Your task to perform on an android device: Set the phone to "Do not disturb". Image 0: 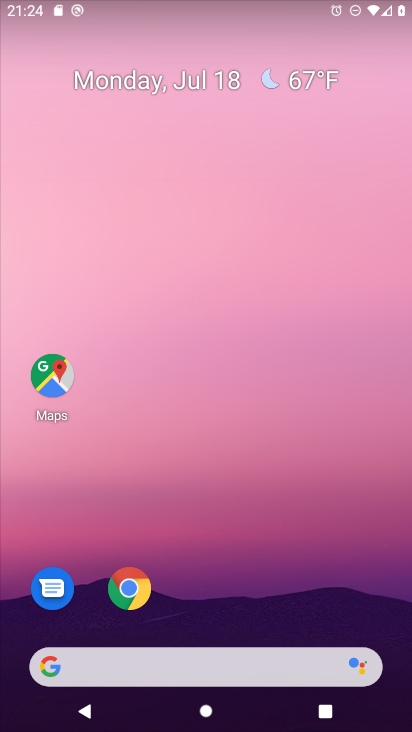
Step 0: drag from (383, 628) to (341, 74)
Your task to perform on an android device: Set the phone to "Do not disturb". Image 1: 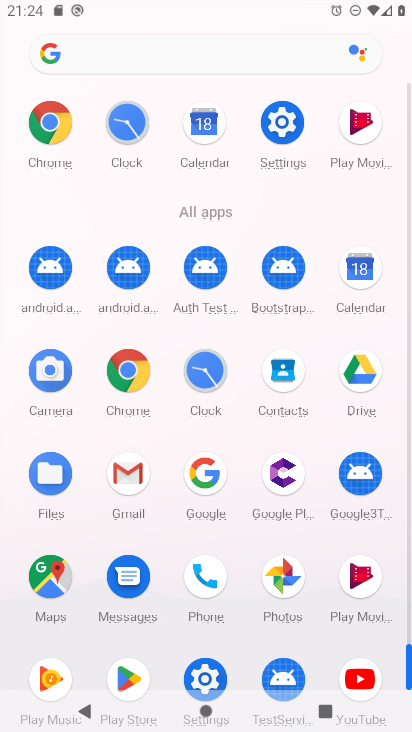
Step 1: click (205, 676)
Your task to perform on an android device: Set the phone to "Do not disturb". Image 2: 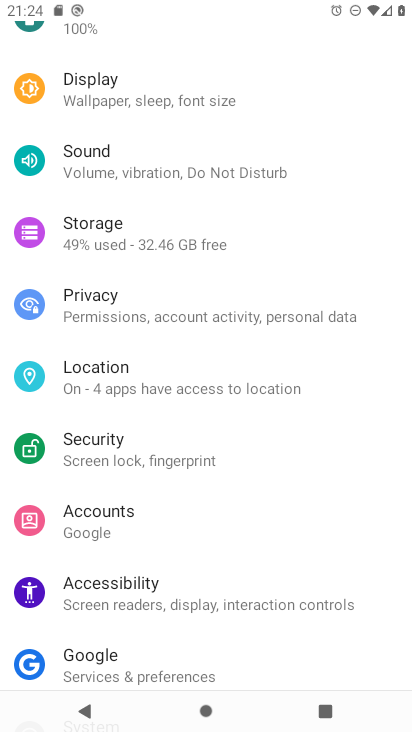
Step 2: drag from (316, 148) to (315, 406)
Your task to perform on an android device: Set the phone to "Do not disturb". Image 3: 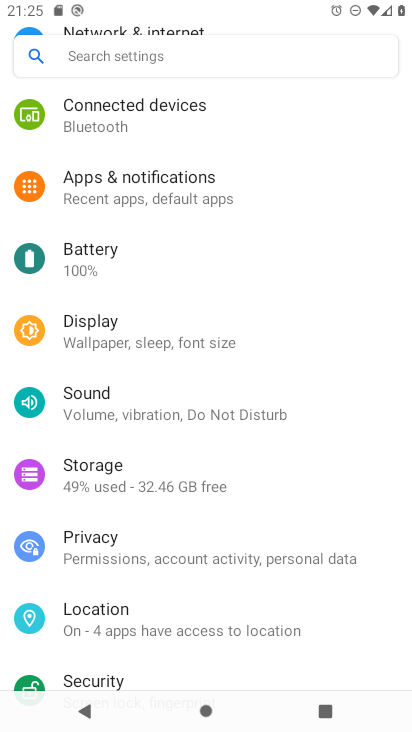
Step 3: click (88, 405)
Your task to perform on an android device: Set the phone to "Do not disturb". Image 4: 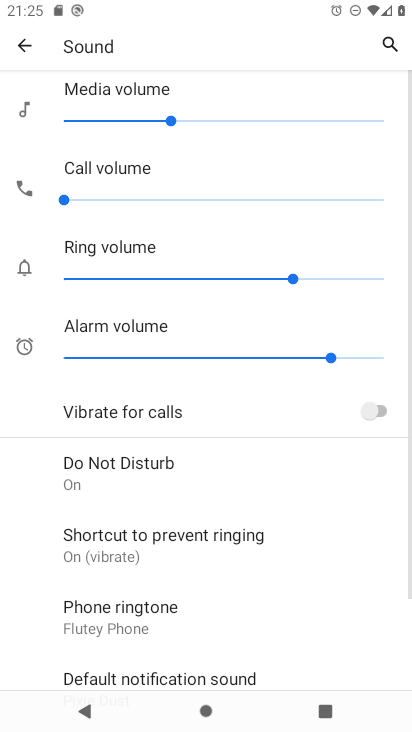
Step 4: click (127, 464)
Your task to perform on an android device: Set the phone to "Do not disturb". Image 5: 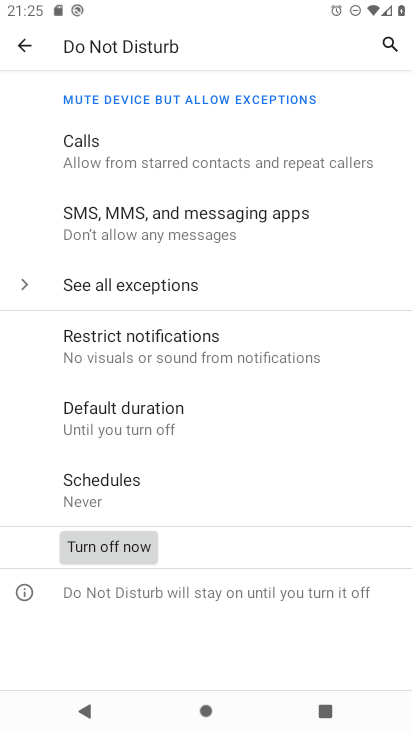
Step 5: task complete